Your task to perform on an android device: open chrome and create a bookmark for the current page Image 0: 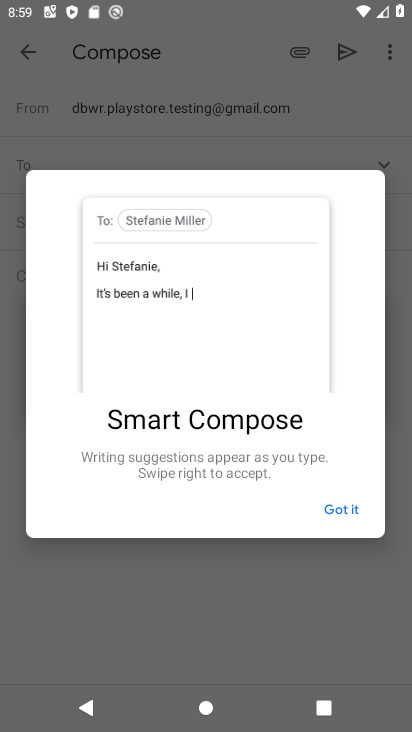
Step 0: press home button
Your task to perform on an android device: open chrome and create a bookmark for the current page Image 1: 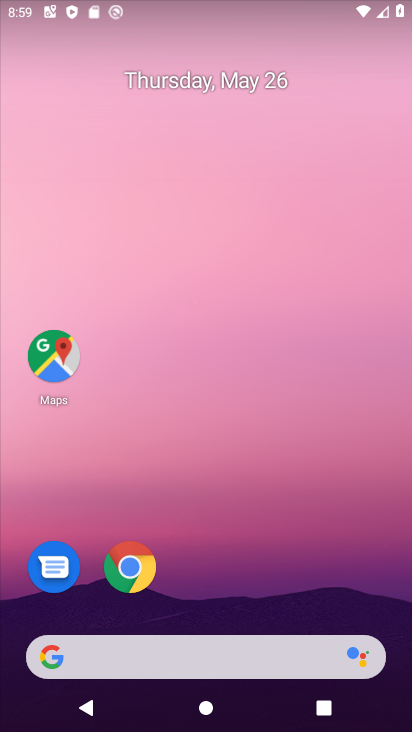
Step 1: click (128, 567)
Your task to perform on an android device: open chrome and create a bookmark for the current page Image 2: 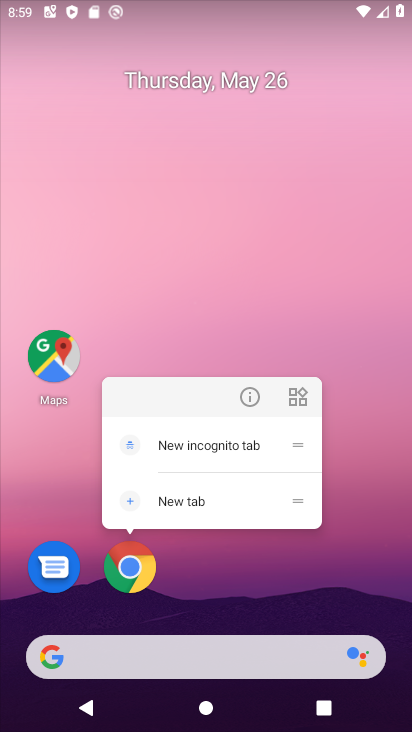
Step 2: click (126, 571)
Your task to perform on an android device: open chrome and create a bookmark for the current page Image 3: 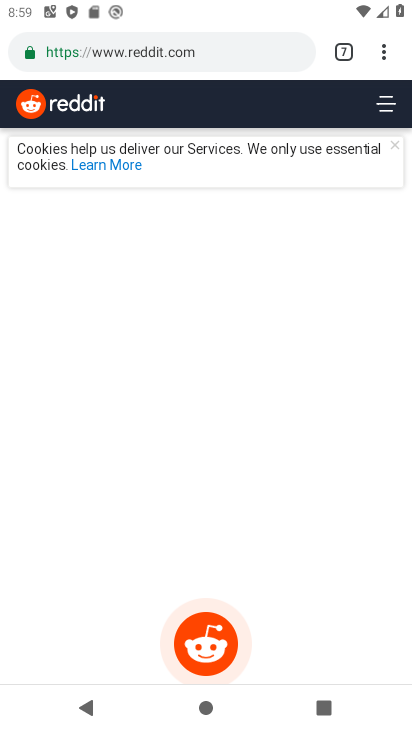
Step 3: click (381, 68)
Your task to perform on an android device: open chrome and create a bookmark for the current page Image 4: 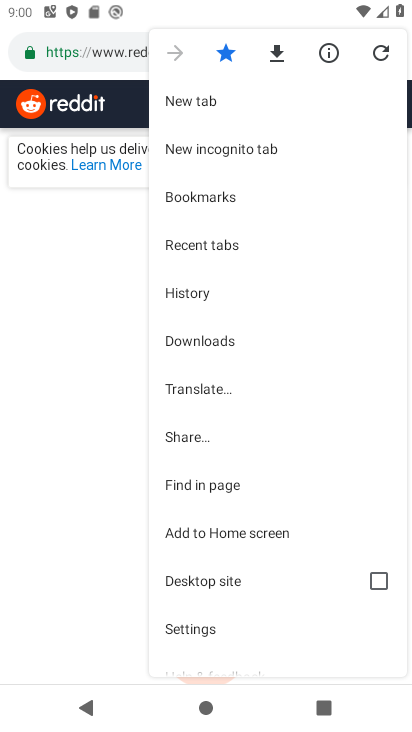
Step 4: task complete